Your task to perform on an android device: Open my contact list Image 0: 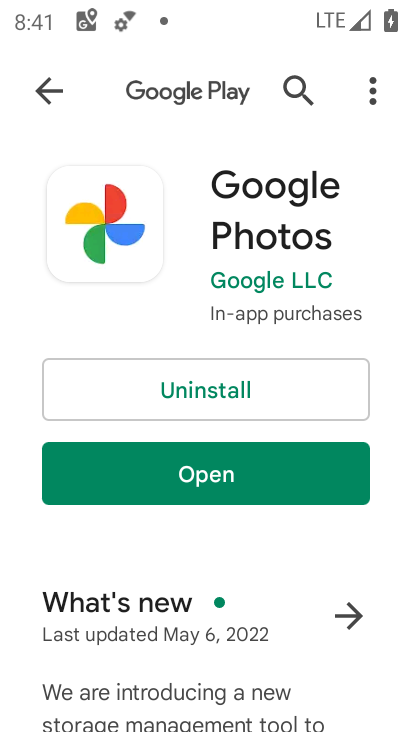
Step 0: press home button
Your task to perform on an android device: Open my contact list Image 1: 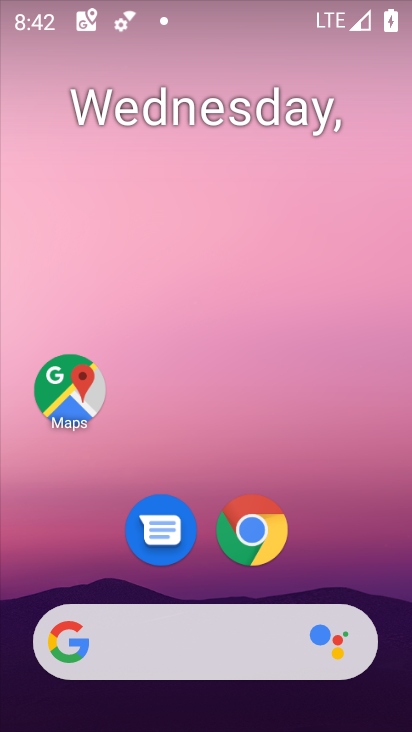
Step 1: drag from (389, 598) to (270, 0)
Your task to perform on an android device: Open my contact list Image 2: 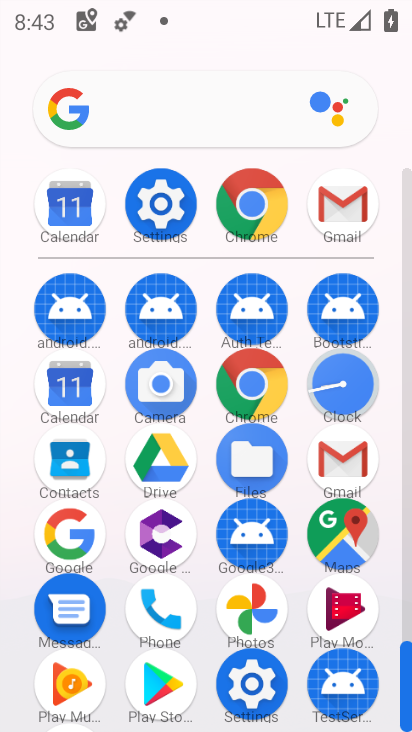
Step 2: click (78, 486)
Your task to perform on an android device: Open my contact list Image 3: 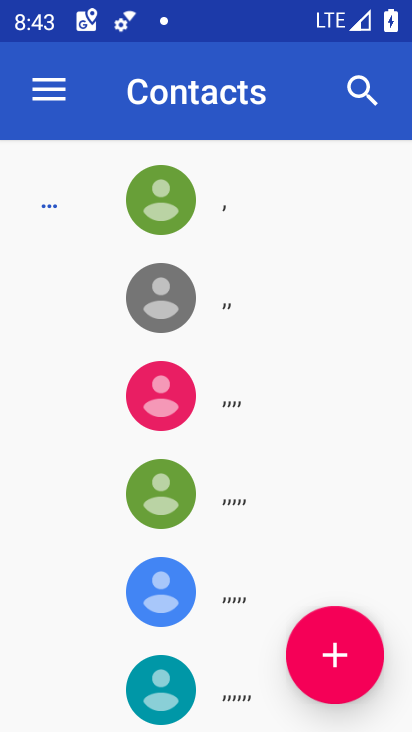
Step 3: task complete